Your task to perform on an android device: toggle sleep mode Image 0: 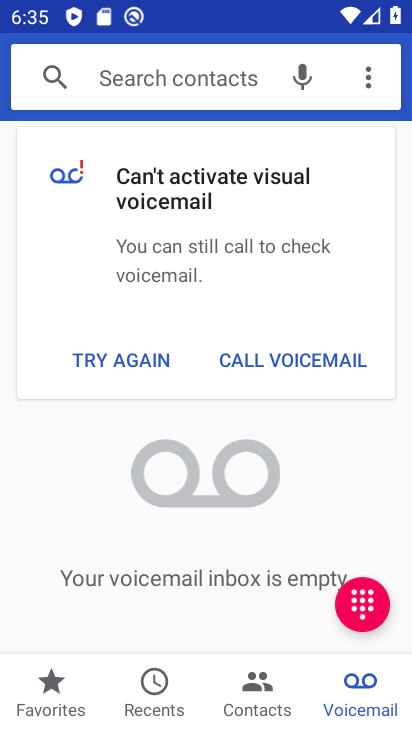
Step 0: press home button
Your task to perform on an android device: toggle sleep mode Image 1: 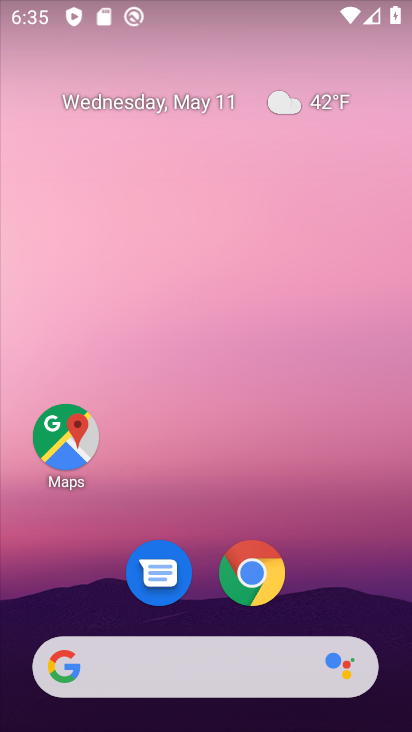
Step 1: drag from (314, 590) to (304, 173)
Your task to perform on an android device: toggle sleep mode Image 2: 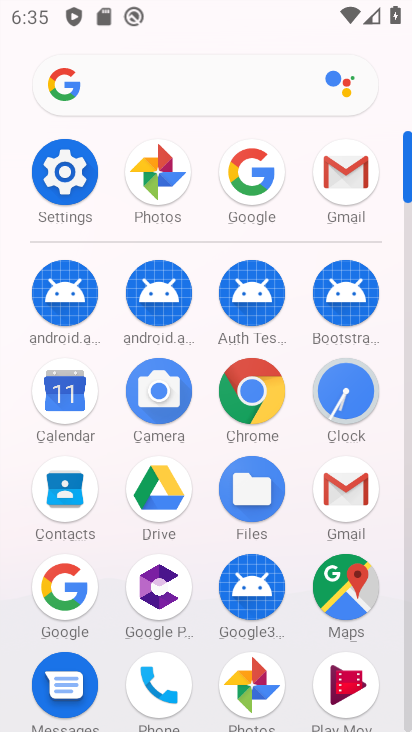
Step 2: click (54, 163)
Your task to perform on an android device: toggle sleep mode Image 3: 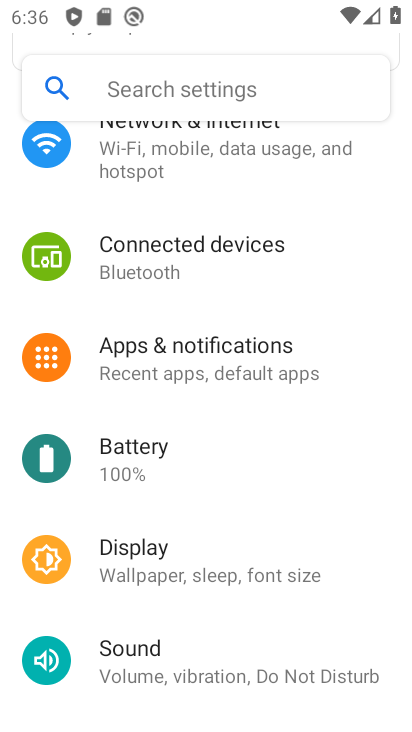
Step 3: task complete